Your task to perform on an android device: check google app version Image 0: 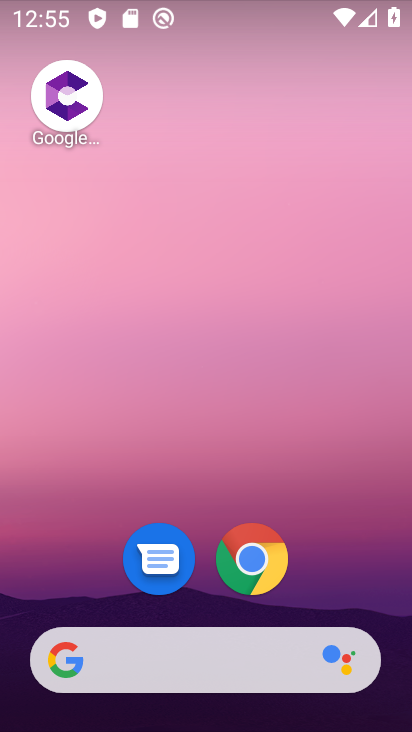
Step 0: drag from (323, 597) to (325, 92)
Your task to perform on an android device: check google app version Image 1: 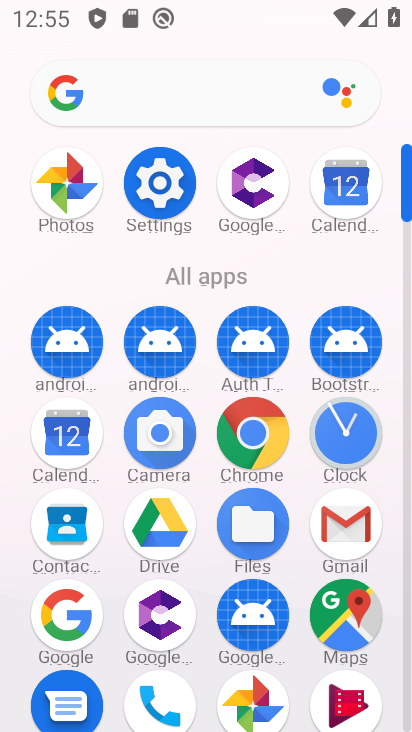
Step 1: click (49, 608)
Your task to perform on an android device: check google app version Image 2: 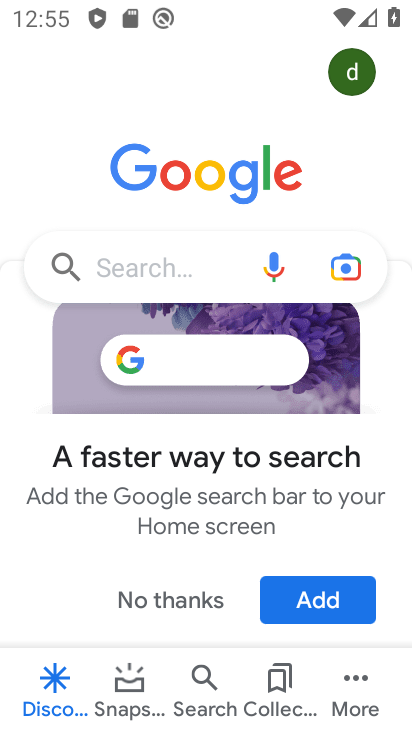
Step 2: click (119, 282)
Your task to perform on an android device: check google app version Image 3: 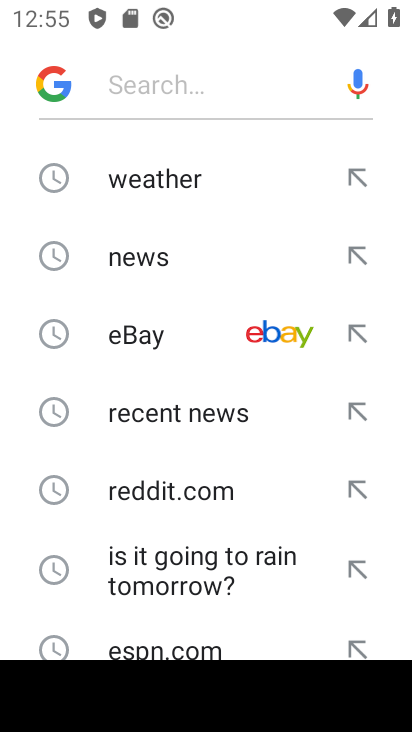
Step 3: press back button
Your task to perform on an android device: check google app version Image 4: 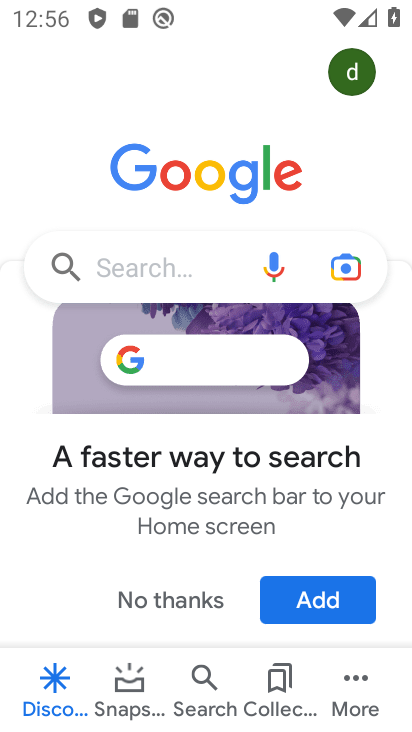
Step 4: click (349, 712)
Your task to perform on an android device: check google app version Image 5: 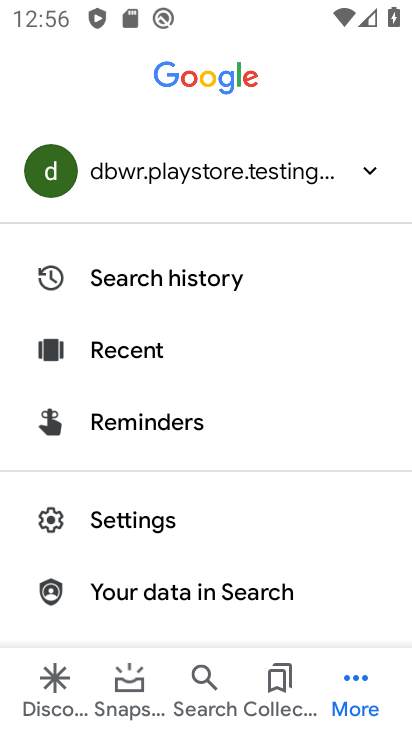
Step 5: click (153, 523)
Your task to perform on an android device: check google app version Image 6: 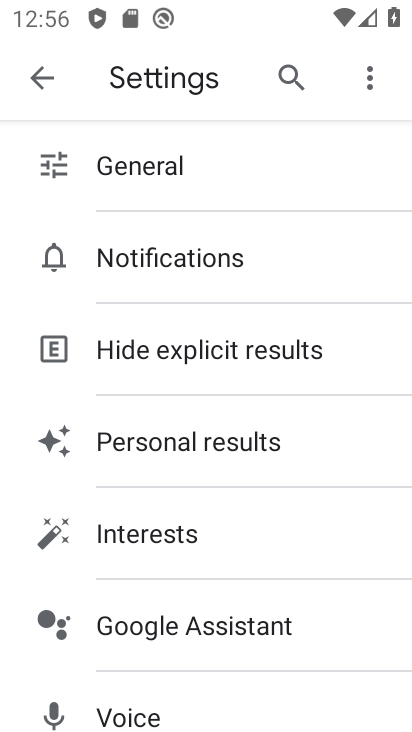
Step 6: drag from (232, 645) to (247, 308)
Your task to perform on an android device: check google app version Image 7: 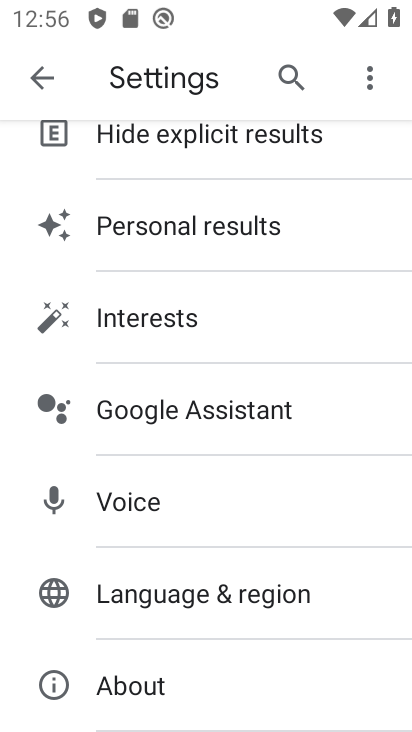
Step 7: drag from (219, 627) to (241, 374)
Your task to perform on an android device: check google app version Image 8: 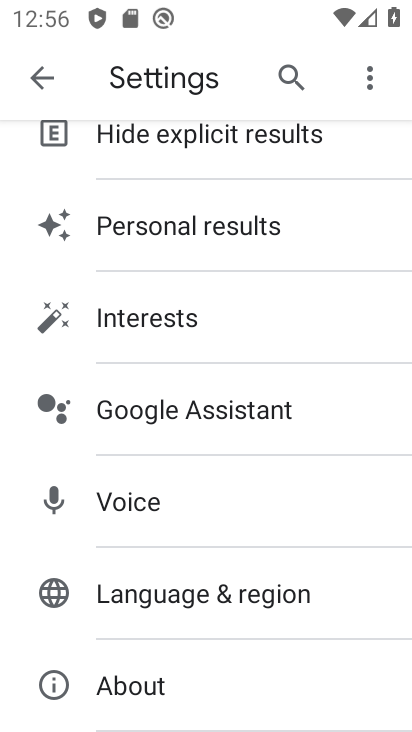
Step 8: click (126, 691)
Your task to perform on an android device: check google app version Image 9: 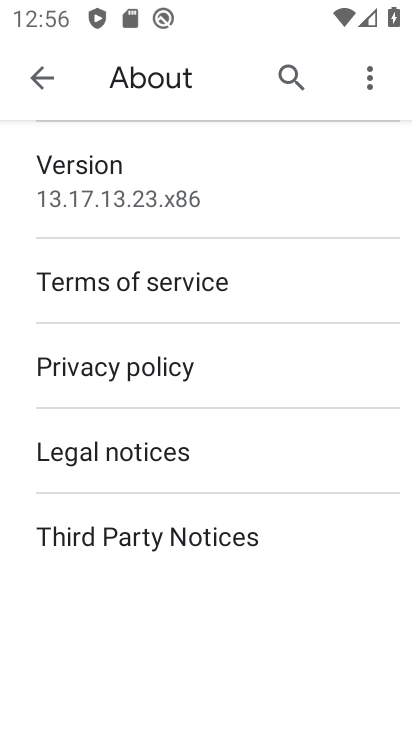
Step 9: task complete